Your task to perform on an android device: See recent photos Image 0: 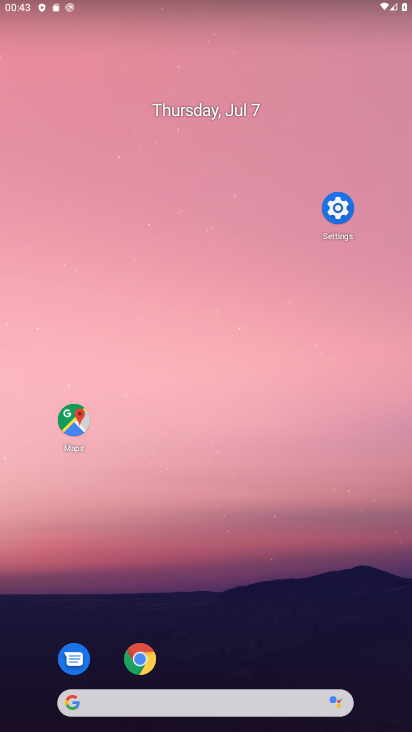
Step 0: drag from (217, 707) to (187, 323)
Your task to perform on an android device: See recent photos Image 1: 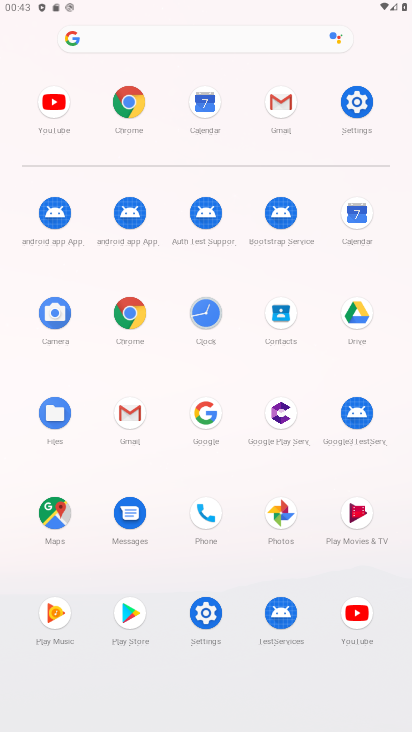
Step 1: click (263, 516)
Your task to perform on an android device: See recent photos Image 2: 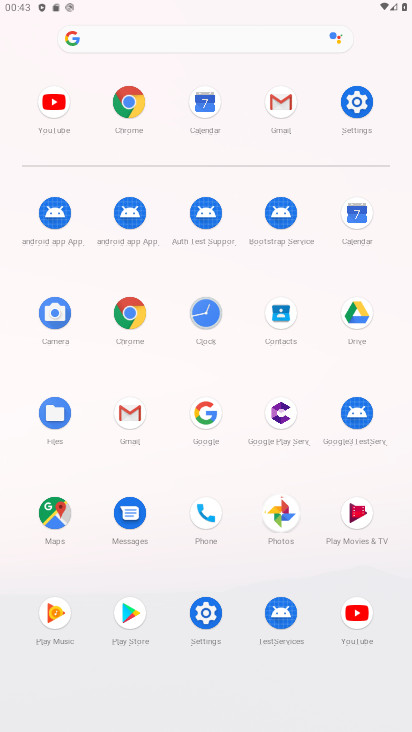
Step 2: click (275, 513)
Your task to perform on an android device: See recent photos Image 3: 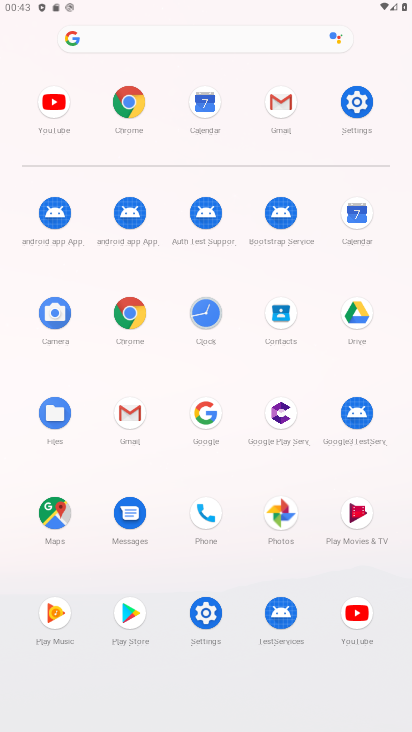
Step 3: click (281, 513)
Your task to perform on an android device: See recent photos Image 4: 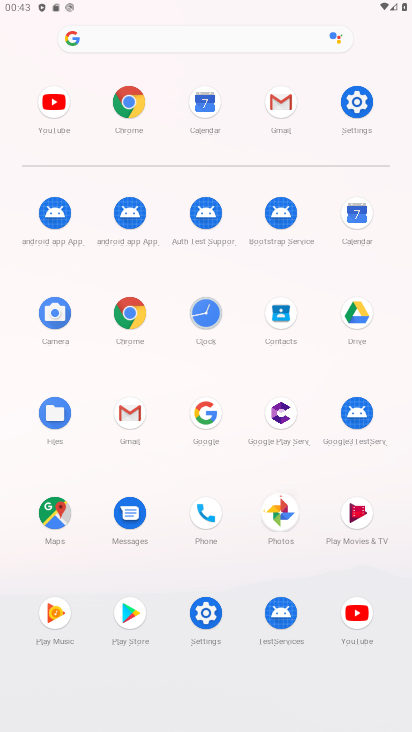
Step 4: click (281, 513)
Your task to perform on an android device: See recent photos Image 5: 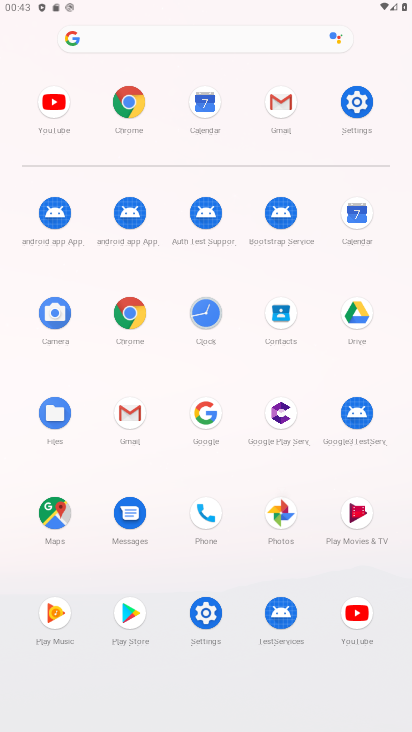
Step 5: click (281, 513)
Your task to perform on an android device: See recent photos Image 6: 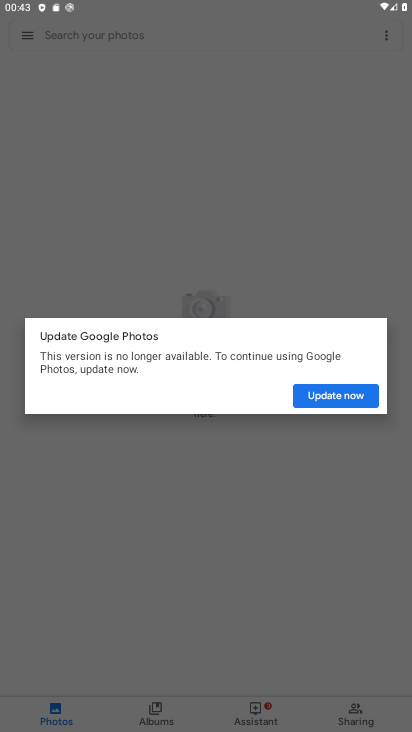
Step 6: click (344, 397)
Your task to perform on an android device: See recent photos Image 7: 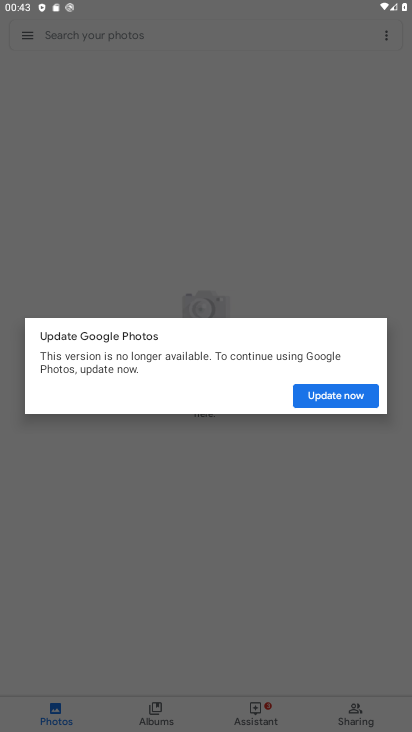
Step 7: click (345, 398)
Your task to perform on an android device: See recent photos Image 8: 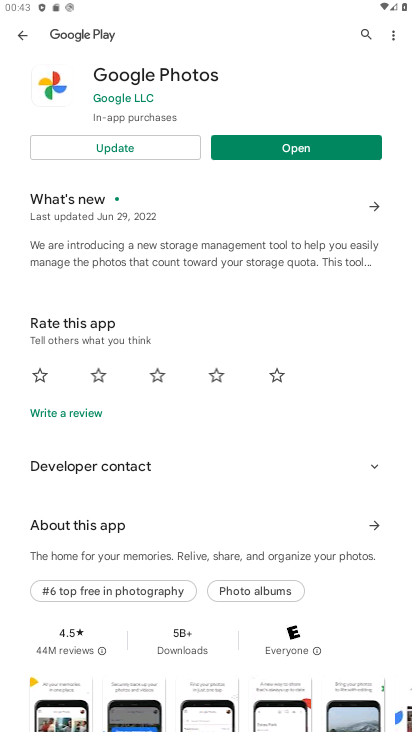
Step 8: click (297, 142)
Your task to perform on an android device: See recent photos Image 9: 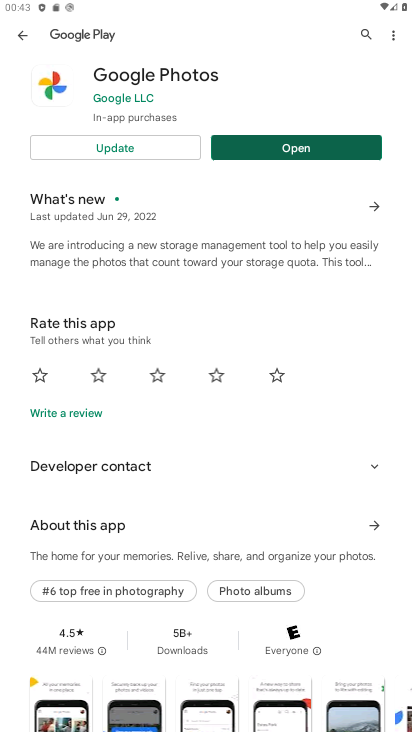
Step 9: click (309, 141)
Your task to perform on an android device: See recent photos Image 10: 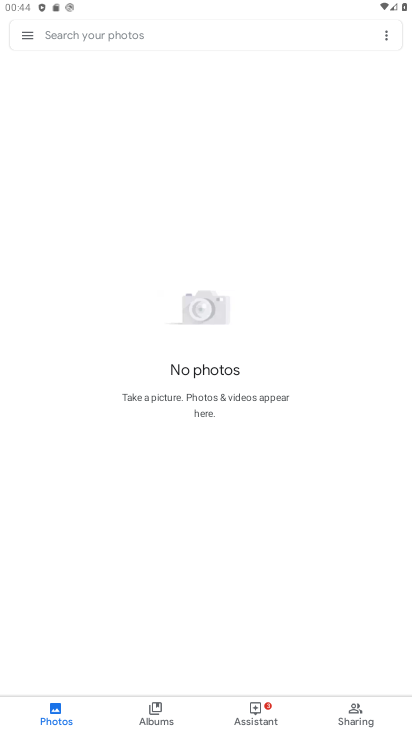
Step 10: task complete